Your task to perform on an android device: Open Chrome and go to the settings page Image 0: 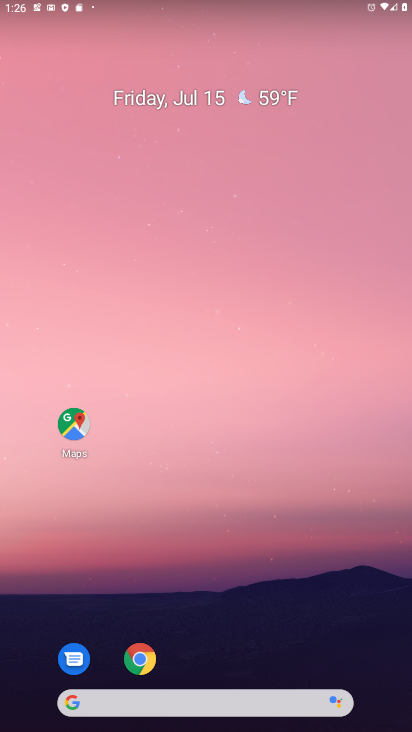
Step 0: click (139, 662)
Your task to perform on an android device: Open Chrome and go to the settings page Image 1: 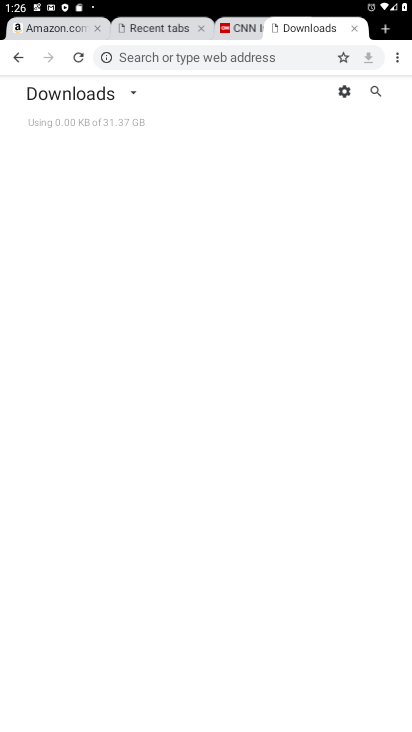
Step 1: click (397, 58)
Your task to perform on an android device: Open Chrome and go to the settings page Image 2: 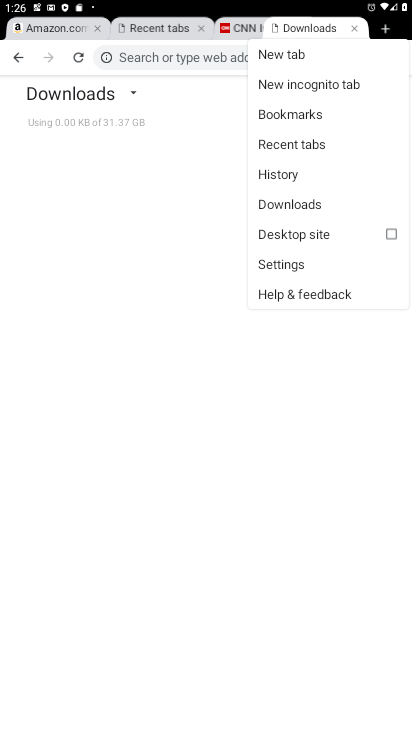
Step 2: click (282, 263)
Your task to perform on an android device: Open Chrome and go to the settings page Image 3: 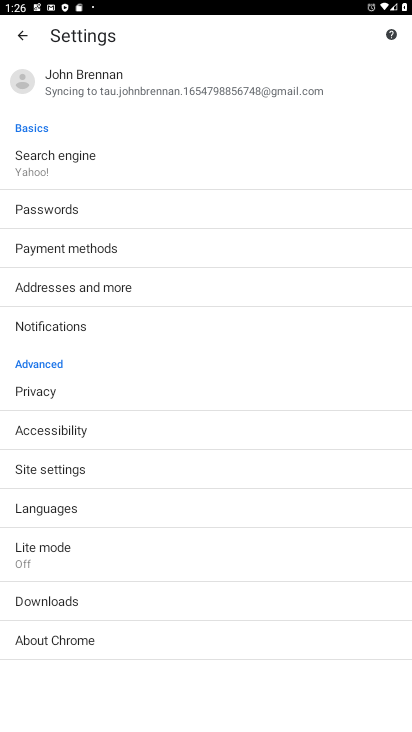
Step 3: task complete